Your task to perform on an android device: Search for sushi restaurants on Maps Image 0: 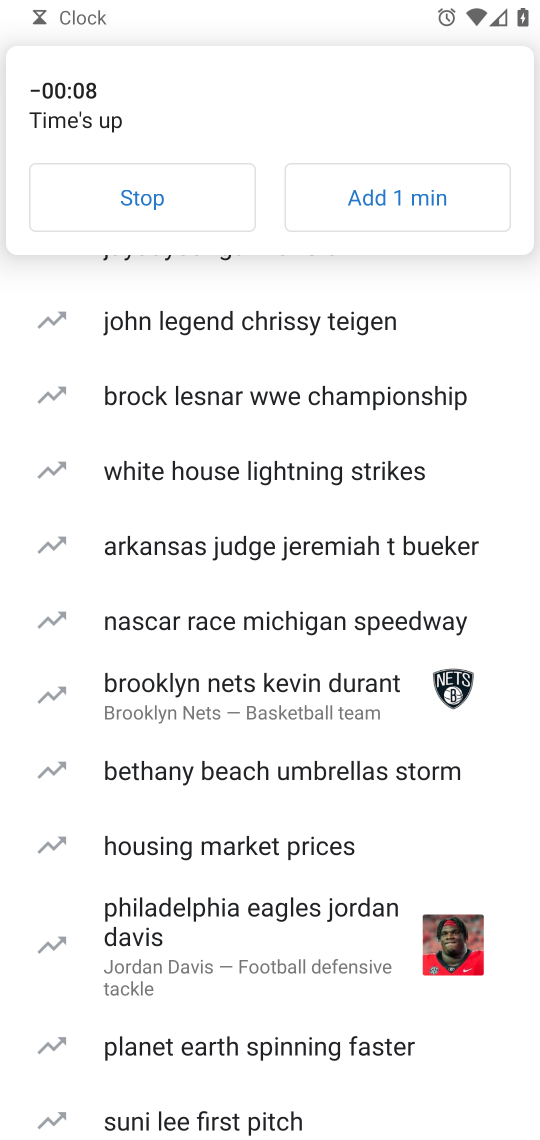
Step 0: click (192, 204)
Your task to perform on an android device: Search for sushi restaurants on Maps Image 1: 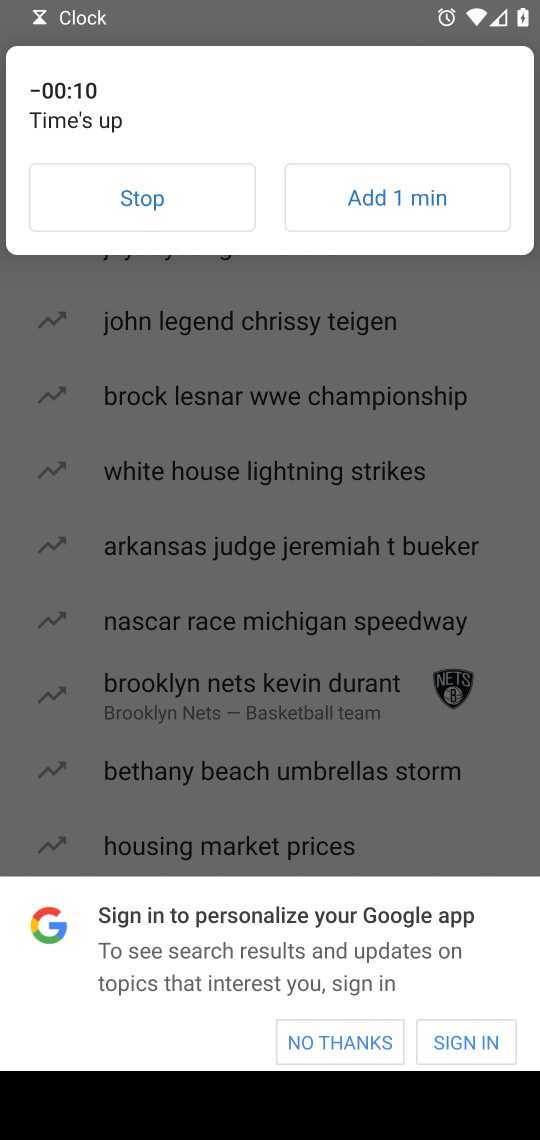
Step 1: press home button
Your task to perform on an android device: Search for sushi restaurants on Maps Image 2: 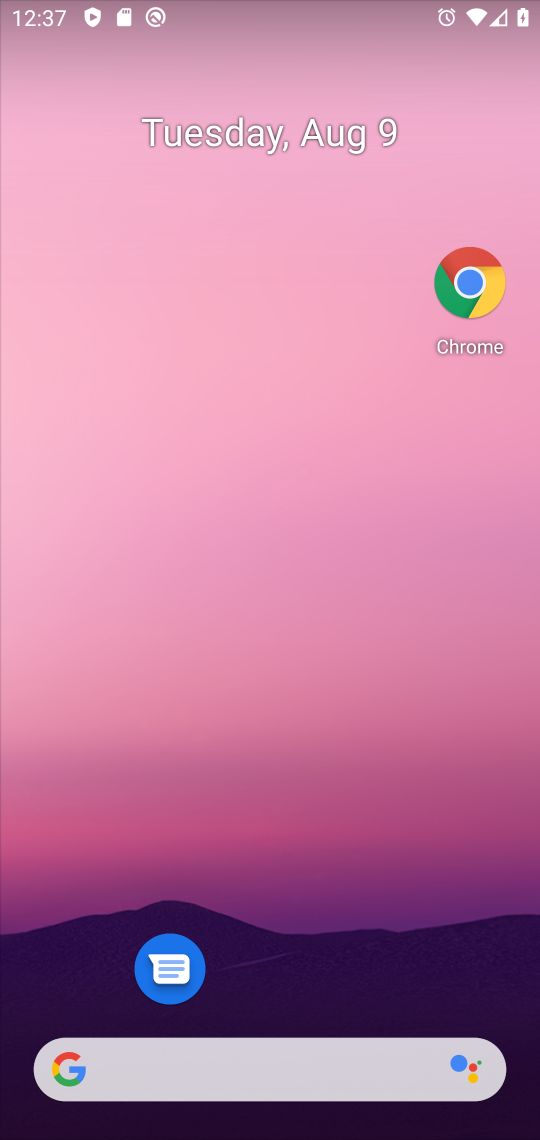
Step 2: drag from (278, 875) to (339, 170)
Your task to perform on an android device: Search for sushi restaurants on Maps Image 3: 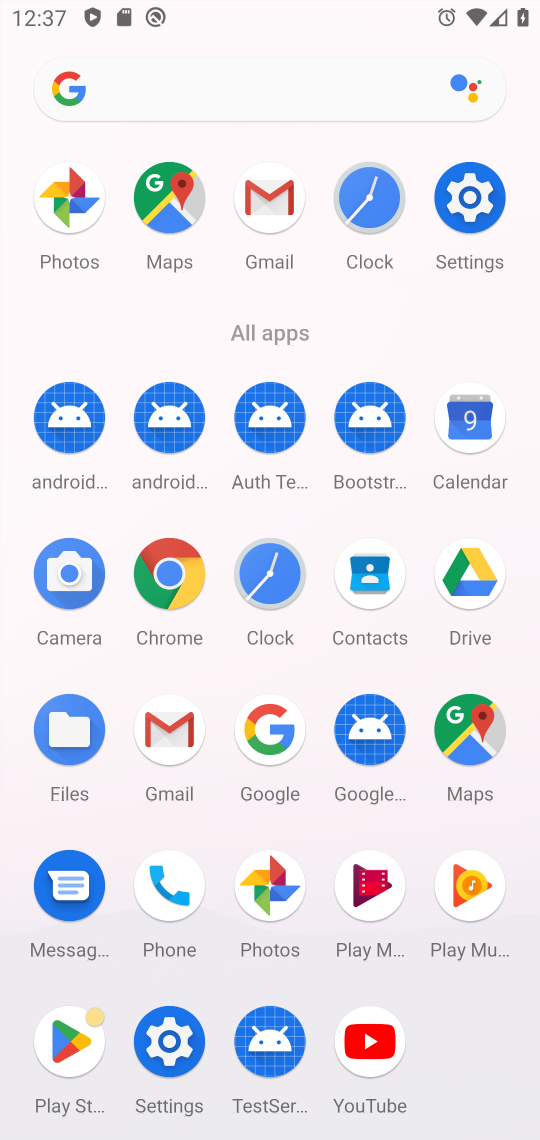
Step 3: click (161, 211)
Your task to perform on an android device: Search for sushi restaurants on Maps Image 4: 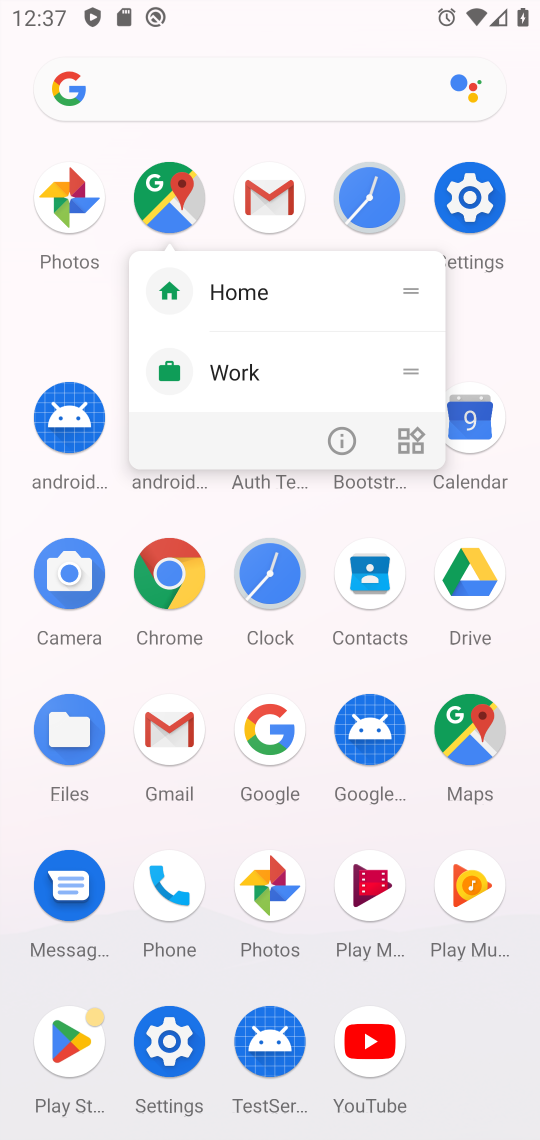
Step 4: click (340, 432)
Your task to perform on an android device: Search for sushi restaurants on Maps Image 5: 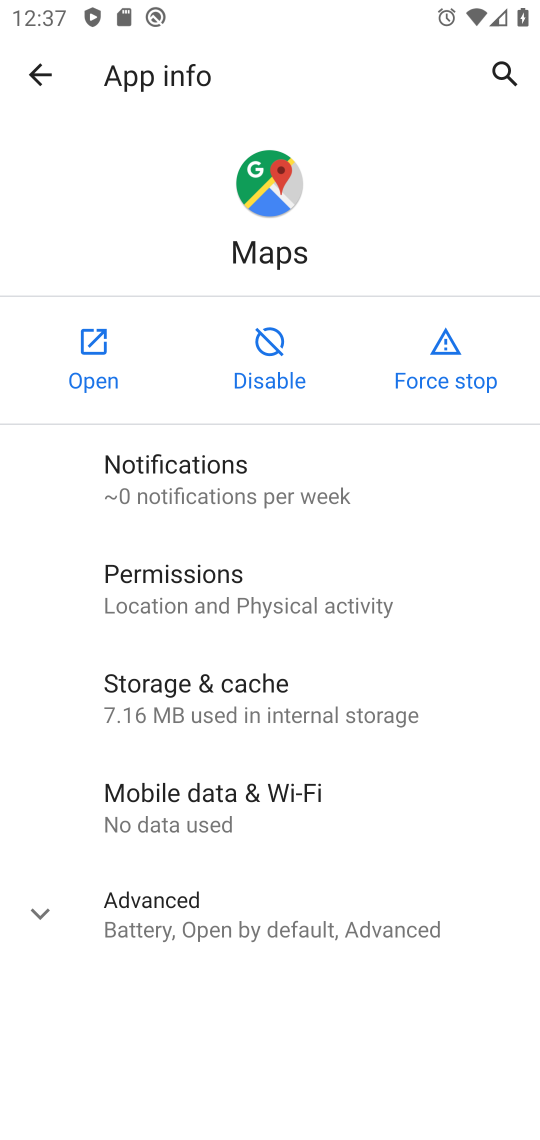
Step 5: click (74, 360)
Your task to perform on an android device: Search for sushi restaurants on Maps Image 6: 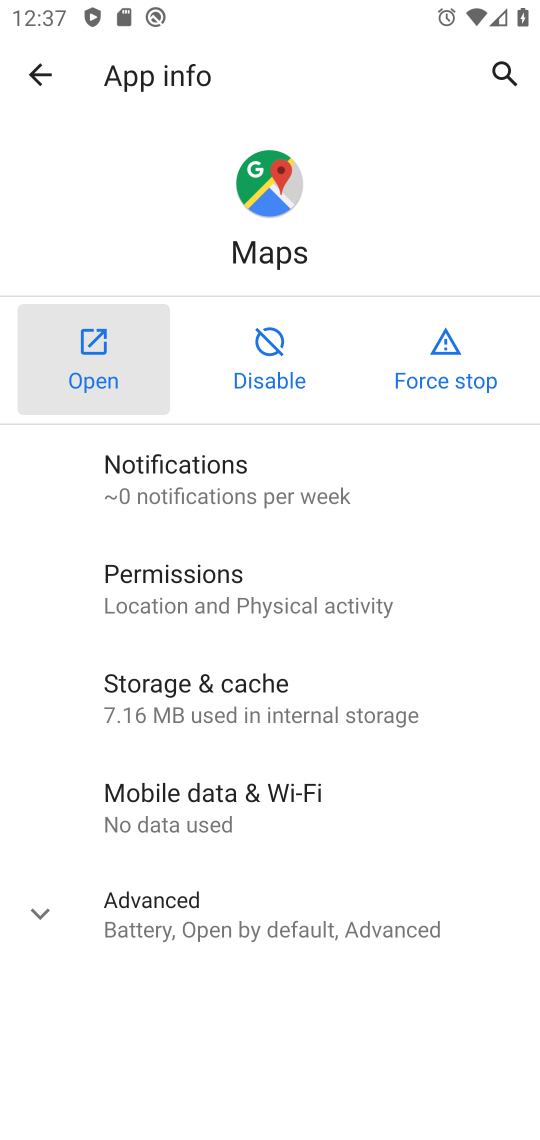
Step 6: click (74, 360)
Your task to perform on an android device: Search for sushi restaurants on Maps Image 7: 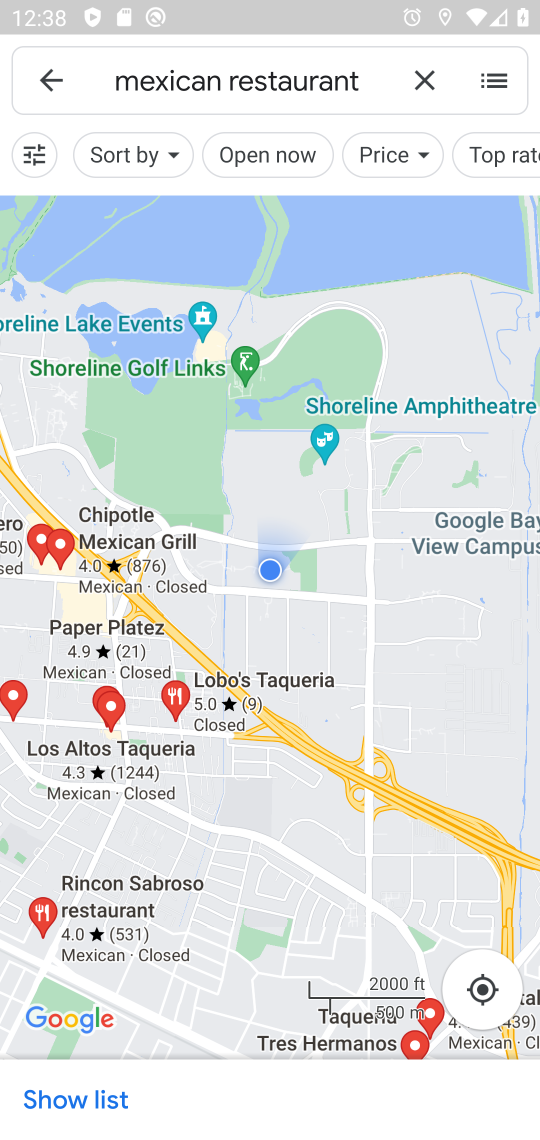
Step 7: click (434, 77)
Your task to perform on an android device: Search for sushi restaurants on Maps Image 8: 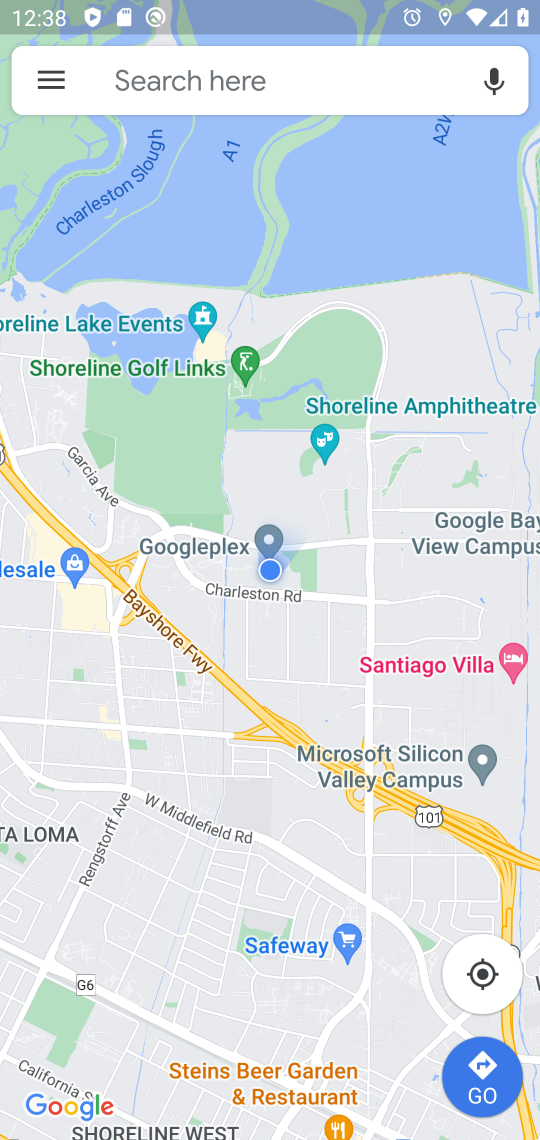
Step 8: click (289, 77)
Your task to perform on an android device: Search for sushi restaurants on Maps Image 9: 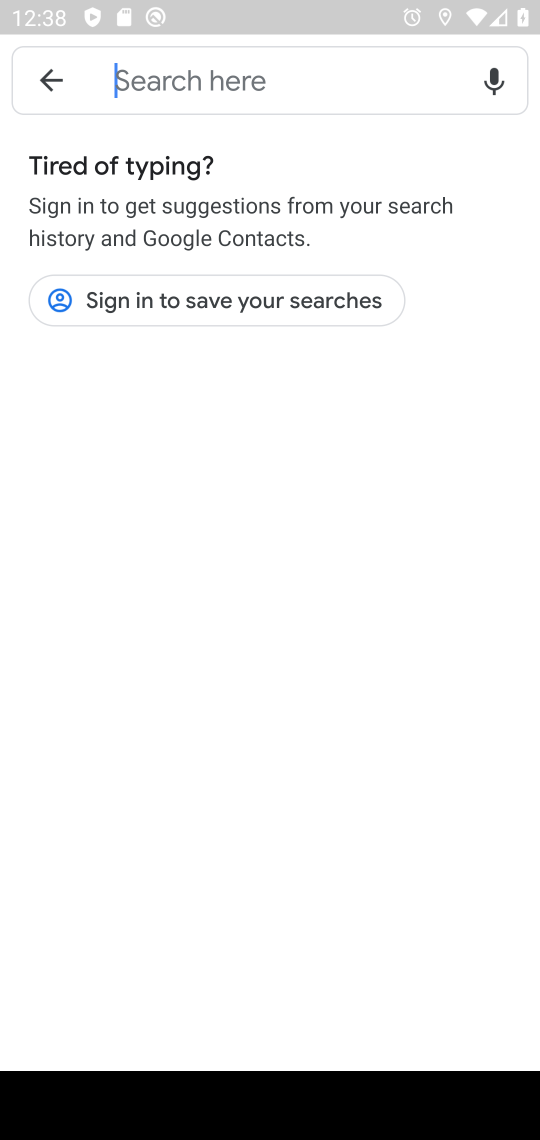
Step 9: type "Mexican restaurants"
Your task to perform on an android device: Search for sushi restaurants on Maps Image 10: 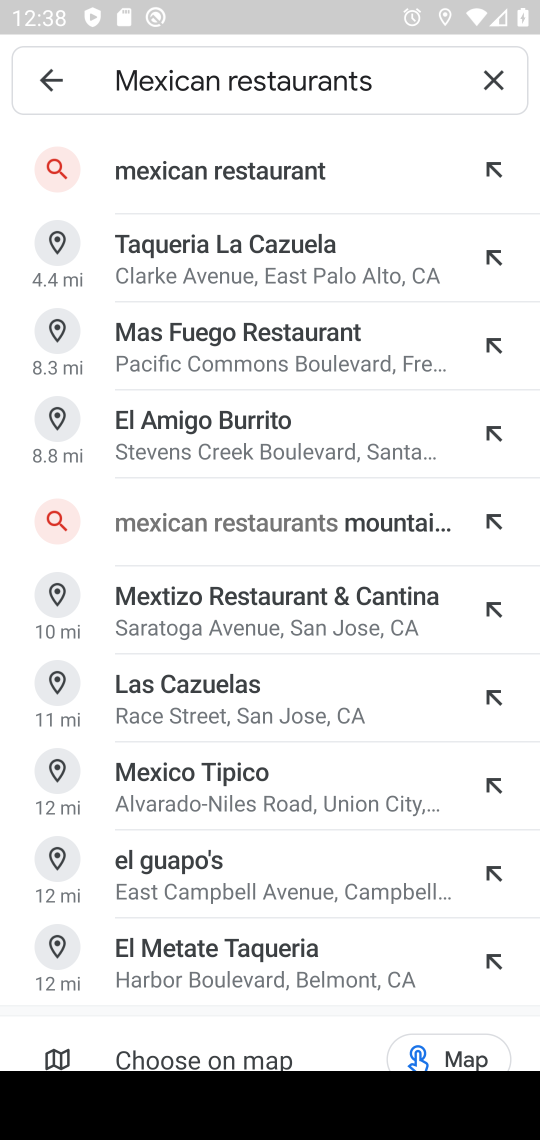
Step 10: click (237, 78)
Your task to perform on an android device: Search for sushi restaurants on Maps Image 11: 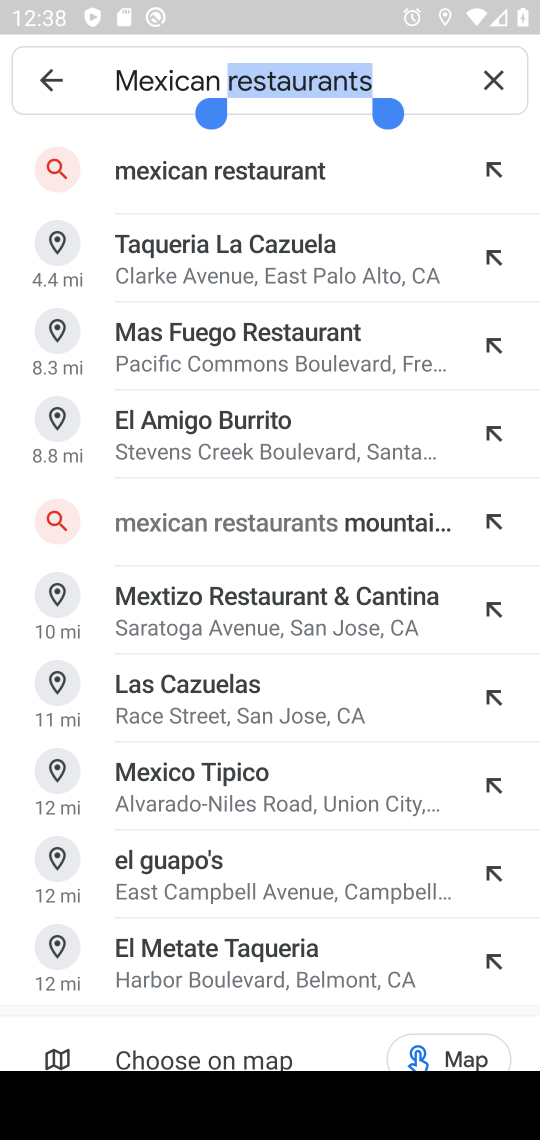
Step 11: click (498, 80)
Your task to perform on an android device: Search for sushi restaurants on Maps Image 12: 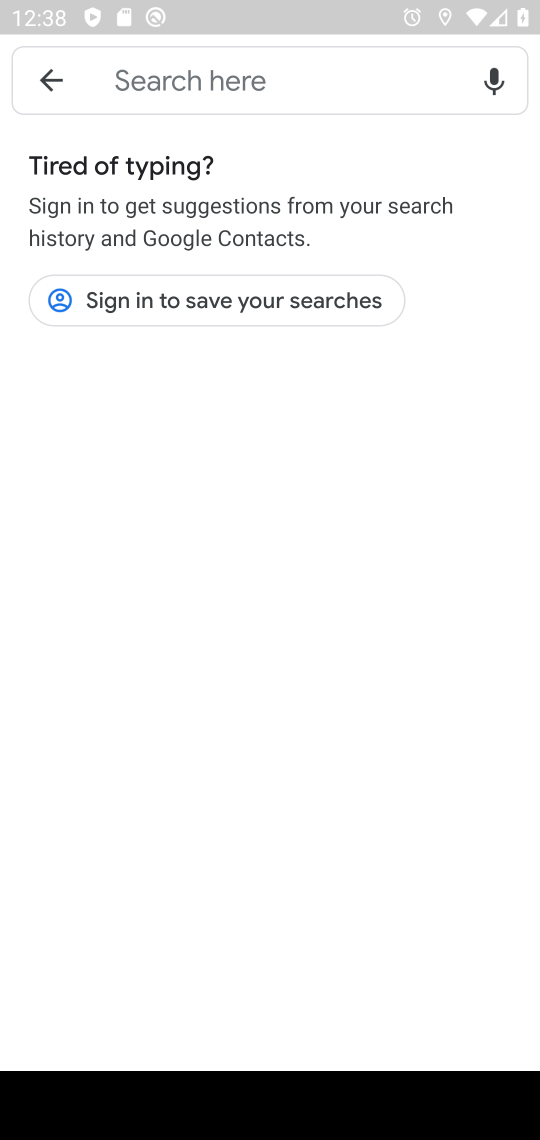
Step 12: type "sushi restaurants "
Your task to perform on an android device: Search for sushi restaurants on Maps Image 13: 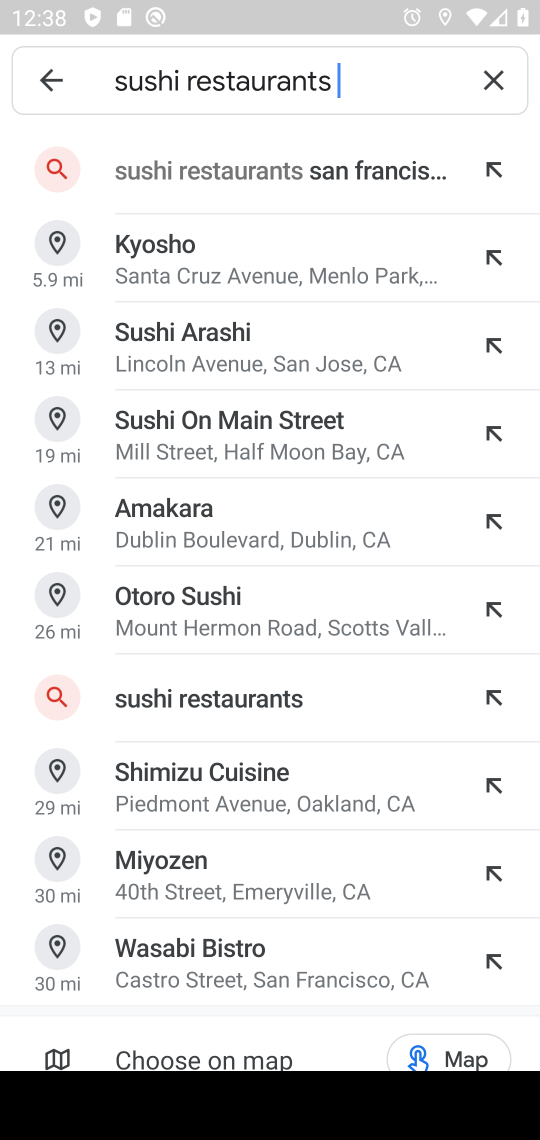
Step 13: click (188, 186)
Your task to perform on an android device: Search for sushi restaurants on Maps Image 14: 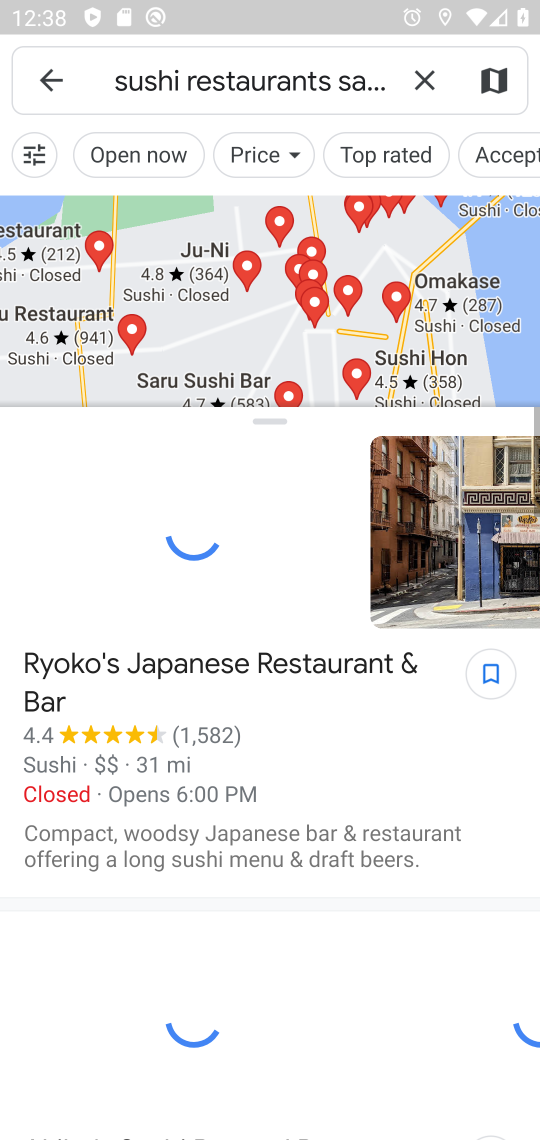
Step 14: drag from (264, 860) to (285, 382)
Your task to perform on an android device: Search for sushi restaurants on Maps Image 15: 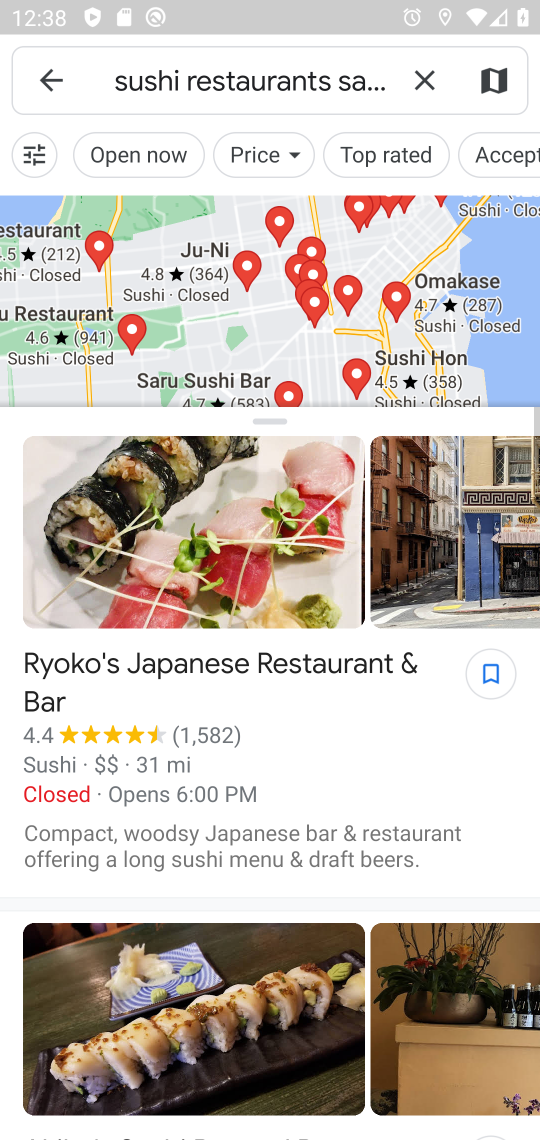
Step 15: click (436, 644)
Your task to perform on an android device: Search for sushi restaurants on Maps Image 16: 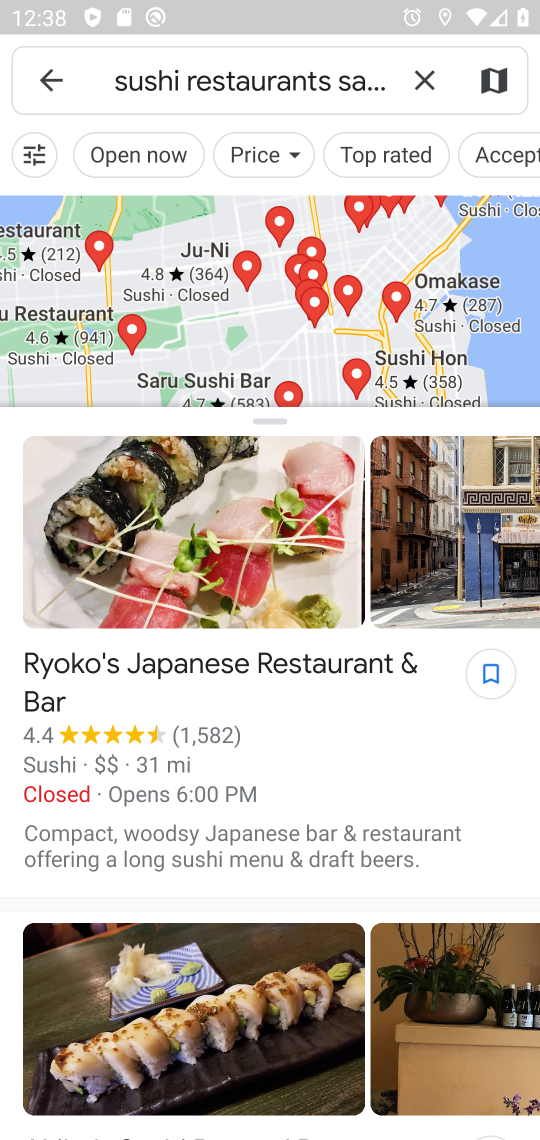
Step 16: task complete